Your task to perform on an android device: open a bookmark in the chrome app Image 0: 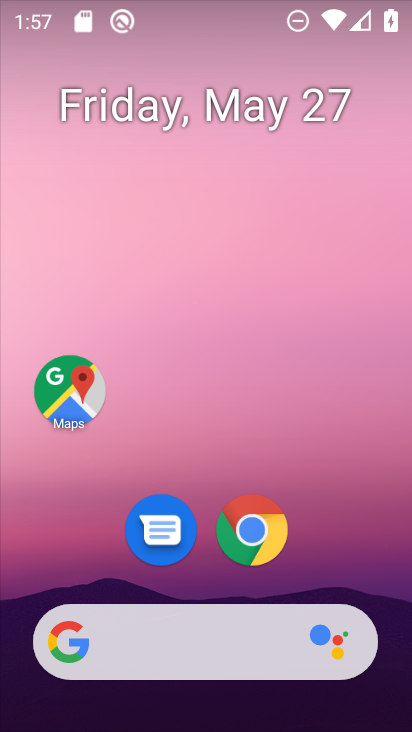
Step 0: click (255, 542)
Your task to perform on an android device: open a bookmark in the chrome app Image 1: 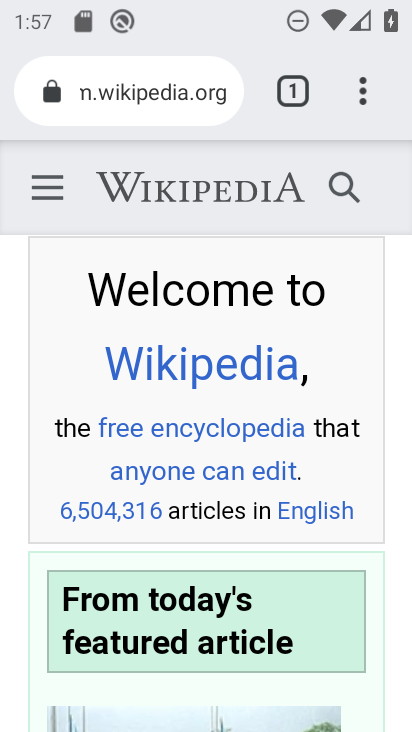
Step 1: click (354, 99)
Your task to perform on an android device: open a bookmark in the chrome app Image 2: 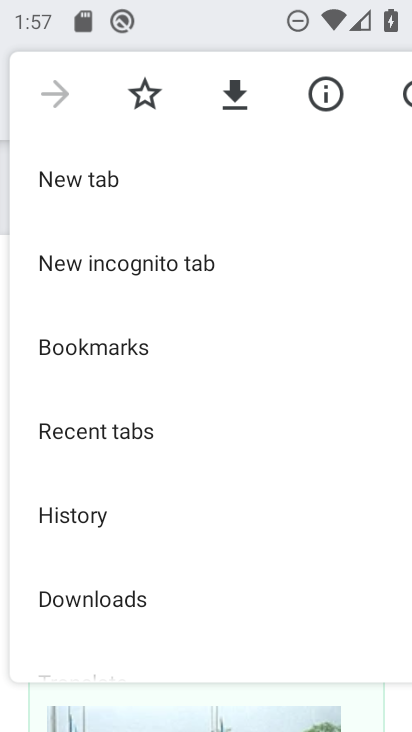
Step 2: click (113, 358)
Your task to perform on an android device: open a bookmark in the chrome app Image 3: 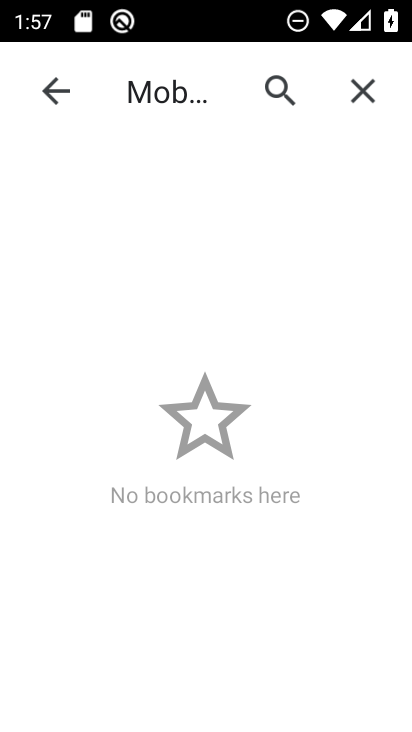
Step 3: task complete